Your task to perform on an android device: Open settings Image 0: 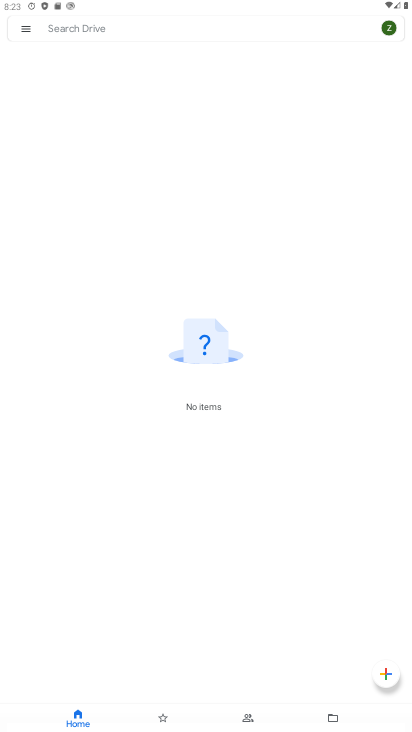
Step 0: press back button
Your task to perform on an android device: Open settings Image 1: 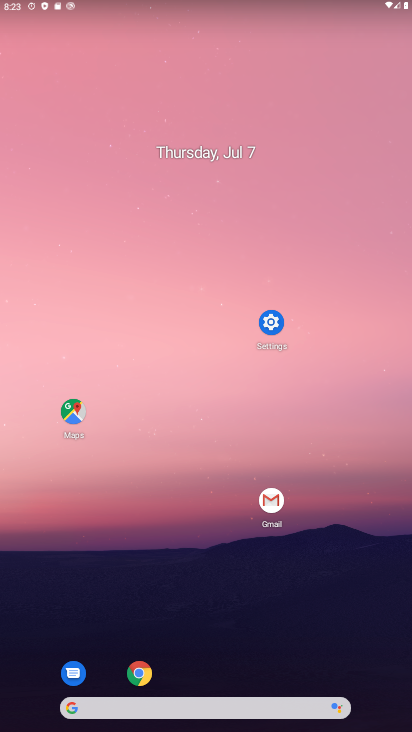
Step 1: click (269, 314)
Your task to perform on an android device: Open settings Image 2: 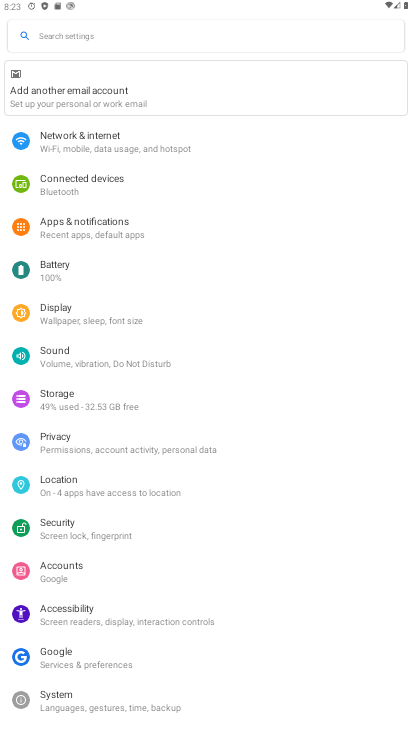
Step 2: task complete